Your task to perform on an android device: Open Android settings Image 0: 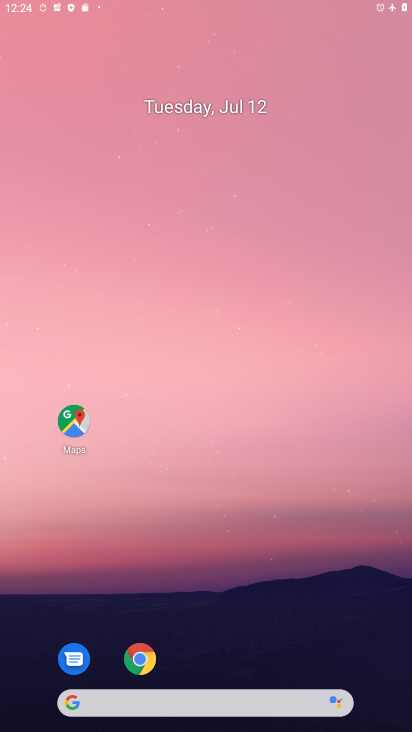
Step 0: drag from (250, 58) to (236, 149)
Your task to perform on an android device: Open Android settings Image 1: 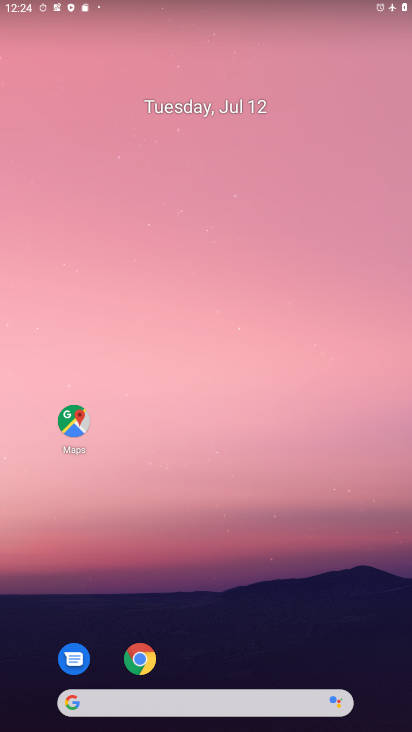
Step 1: drag from (227, 647) to (351, 61)
Your task to perform on an android device: Open Android settings Image 2: 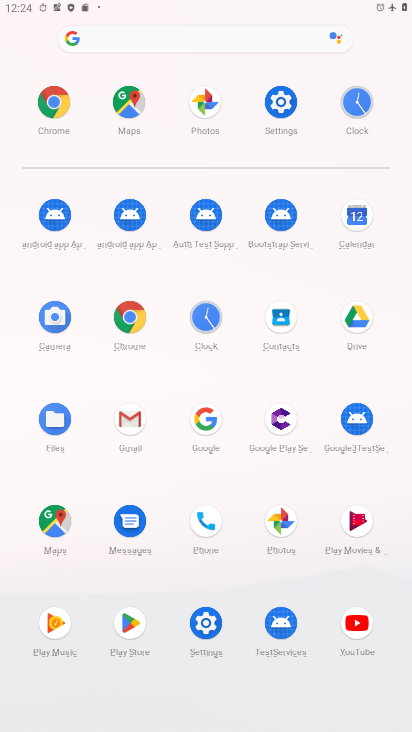
Step 2: click (288, 100)
Your task to perform on an android device: Open Android settings Image 3: 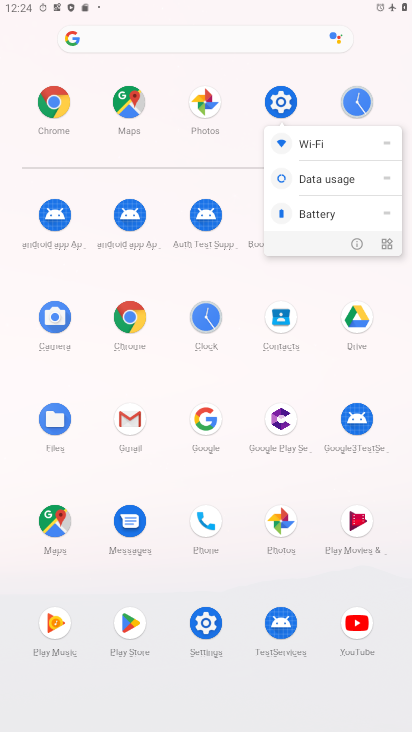
Step 3: click (359, 246)
Your task to perform on an android device: Open Android settings Image 4: 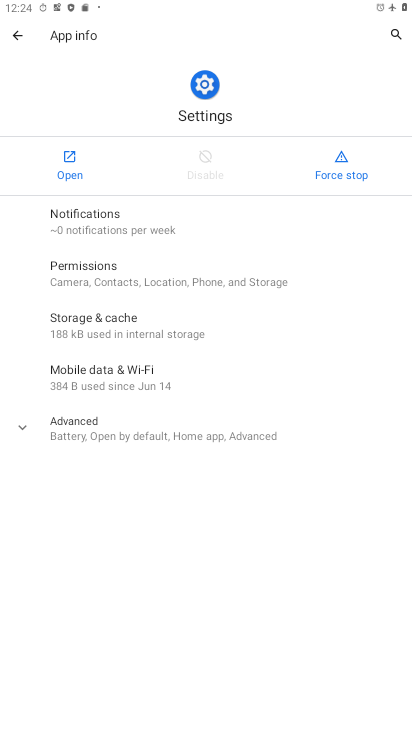
Step 4: click (69, 160)
Your task to perform on an android device: Open Android settings Image 5: 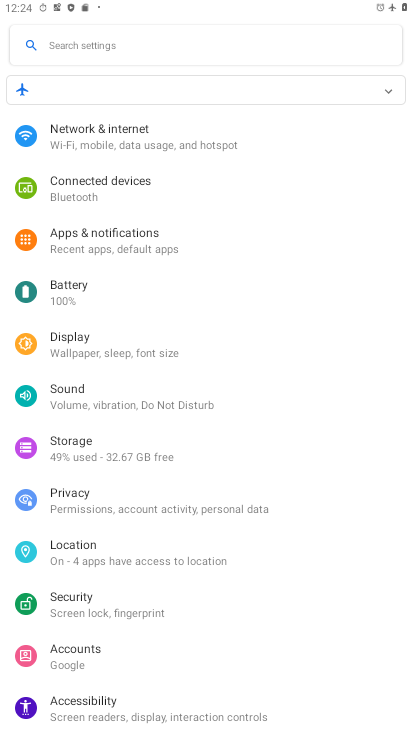
Step 5: drag from (92, 686) to (172, 4)
Your task to perform on an android device: Open Android settings Image 6: 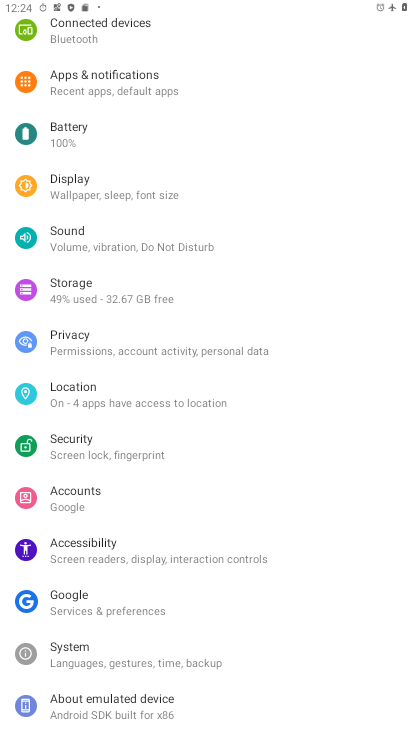
Step 6: click (86, 701)
Your task to perform on an android device: Open Android settings Image 7: 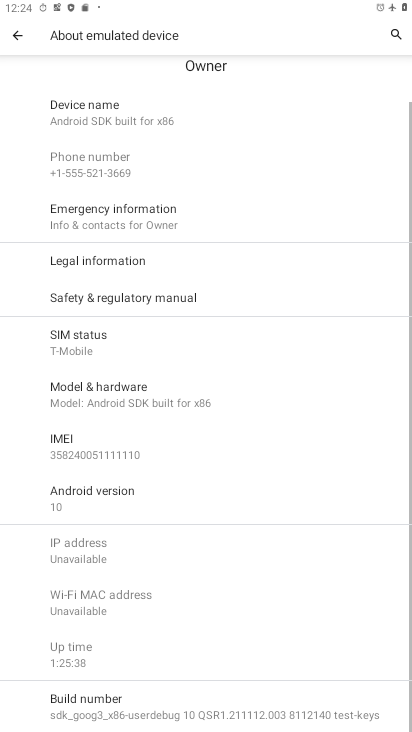
Step 7: click (118, 499)
Your task to perform on an android device: Open Android settings Image 8: 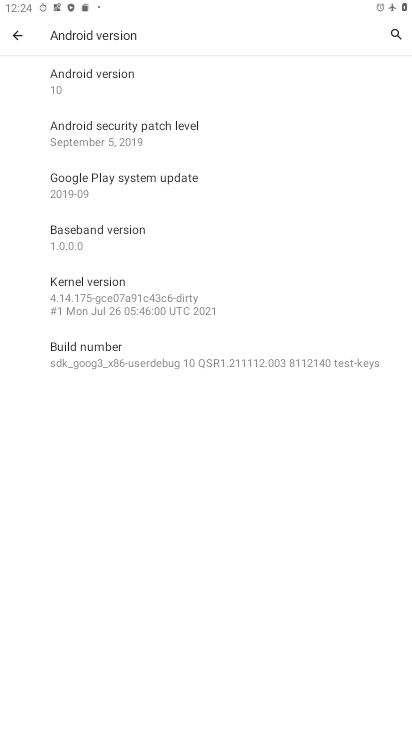
Step 8: click (143, 79)
Your task to perform on an android device: Open Android settings Image 9: 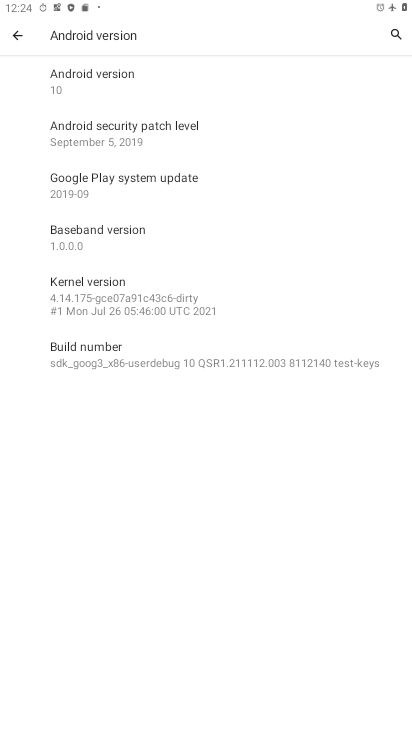
Step 9: task complete